Your task to perform on an android device: change the clock display to digital Image 0: 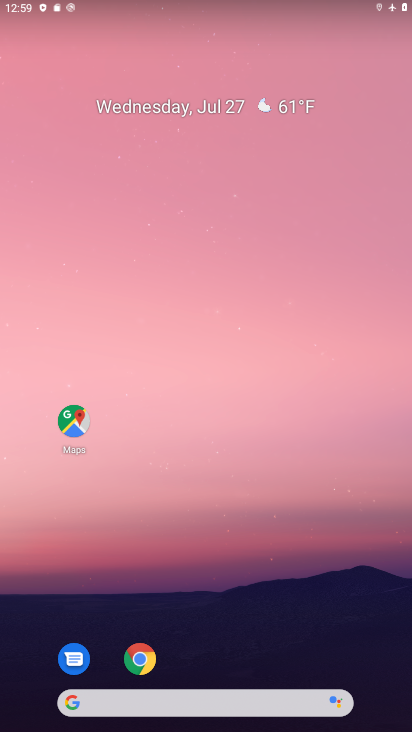
Step 0: drag from (226, 629) to (185, 198)
Your task to perform on an android device: change the clock display to digital Image 1: 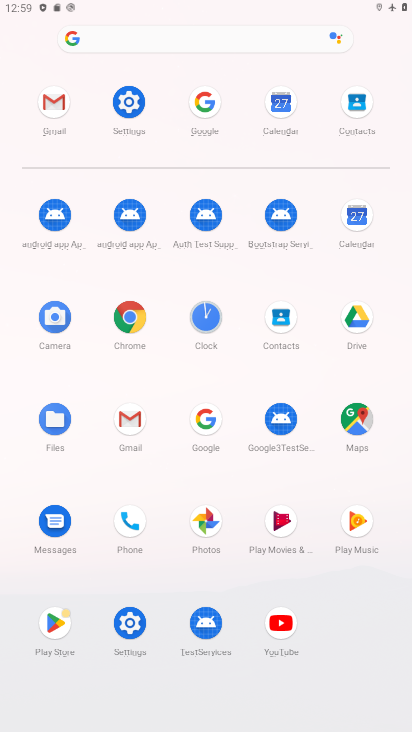
Step 1: click (206, 327)
Your task to perform on an android device: change the clock display to digital Image 2: 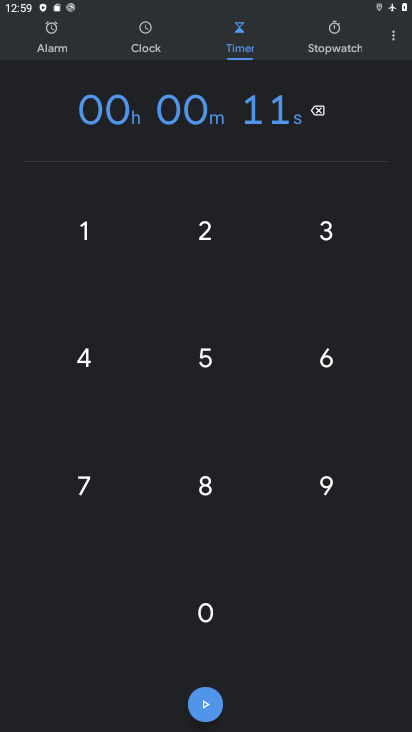
Step 2: click (389, 42)
Your task to perform on an android device: change the clock display to digital Image 3: 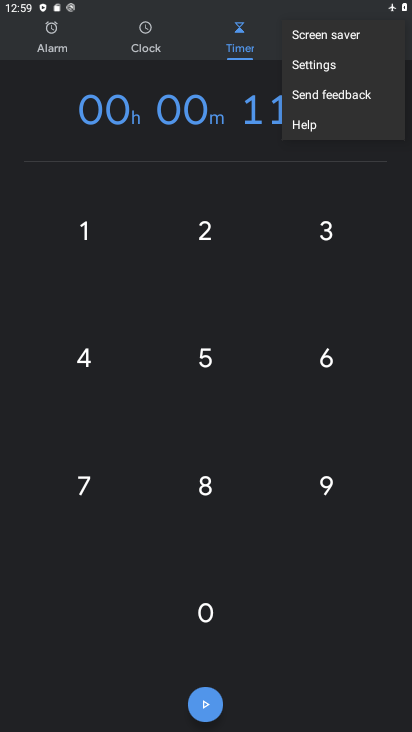
Step 3: click (361, 67)
Your task to perform on an android device: change the clock display to digital Image 4: 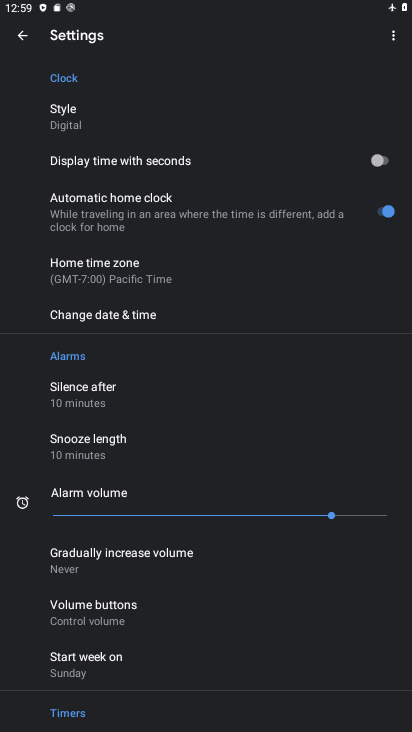
Step 4: click (155, 122)
Your task to perform on an android device: change the clock display to digital Image 5: 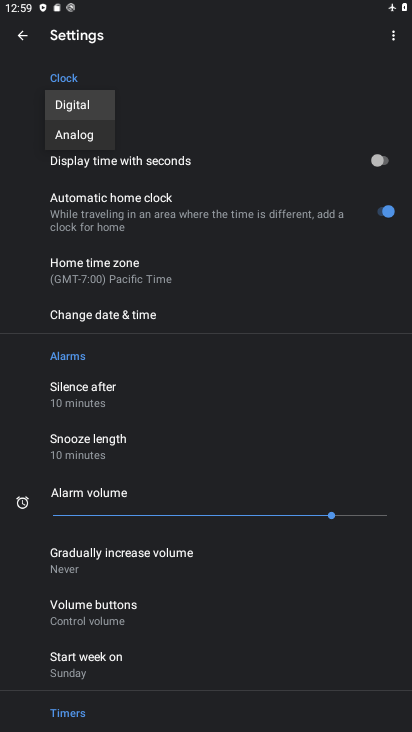
Step 5: task complete